Your task to perform on an android device: change your default location settings in chrome Image 0: 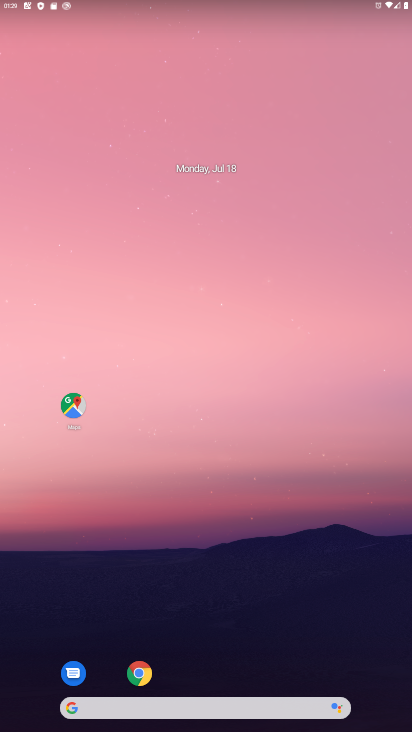
Step 0: click (122, 675)
Your task to perform on an android device: change your default location settings in chrome Image 1: 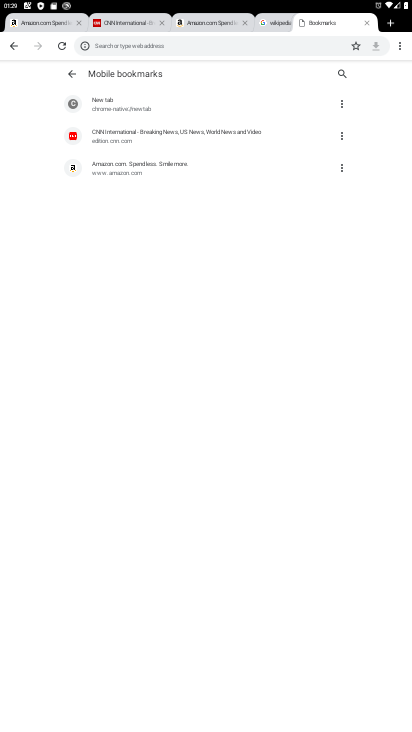
Step 1: click (403, 40)
Your task to perform on an android device: change your default location settings in chrome Image 2: 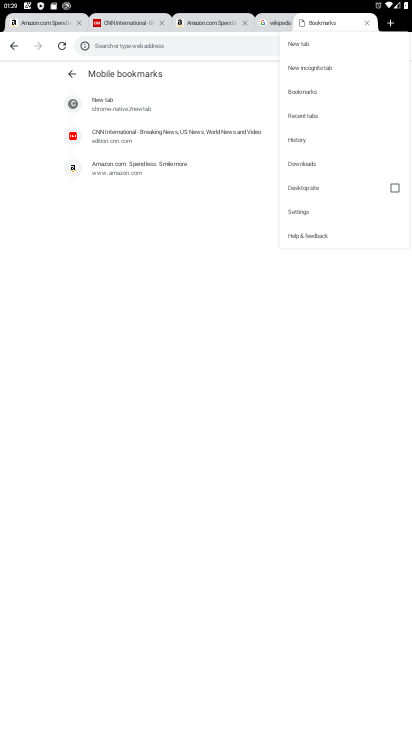
Step 2: click (309, 213)
Your task to perform on an android device: change your default location settings in chrome Image 3: 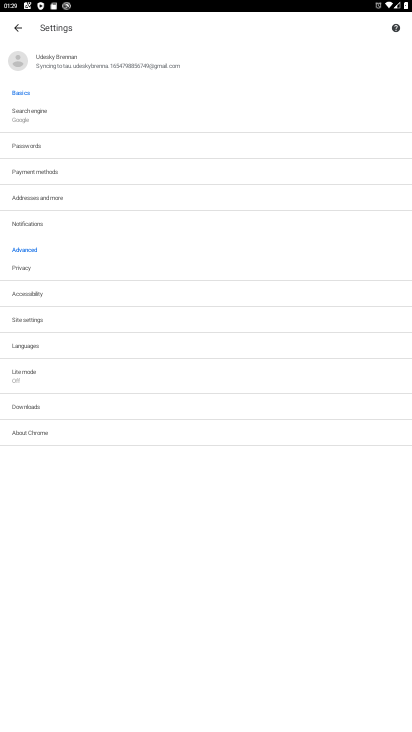
Step 3: click (105, 204)
Your task to perform on an android device: change your default location settings in chrome Image 4: 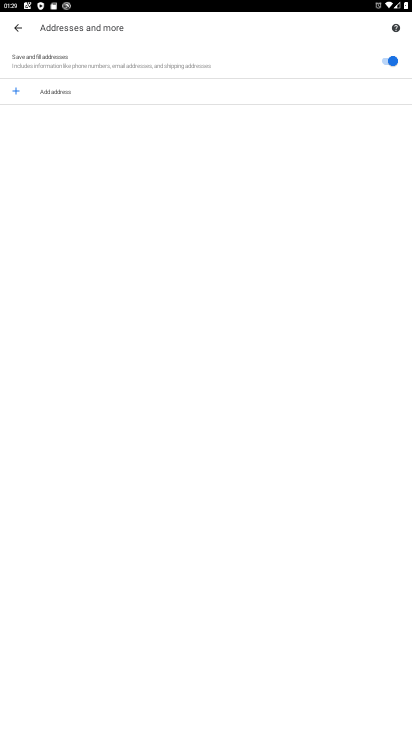
Step 4: task complete